Your task to perform on an android device: What's the weather today? Image 0: 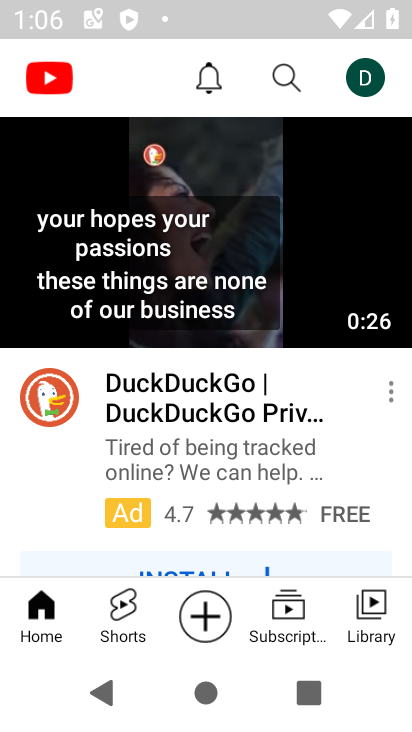
Step 0: press back button
Your task to perform on an android device: What's the weather today? Image 1: 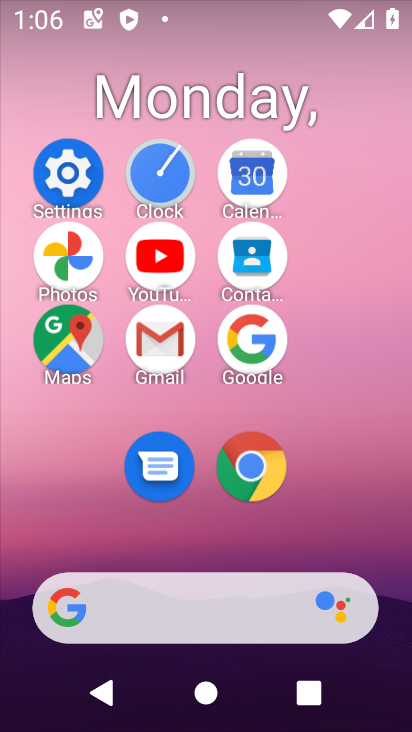
Step 1: click (244, 348)
Your task to perform on an android device: What's the weather today? Image 2: 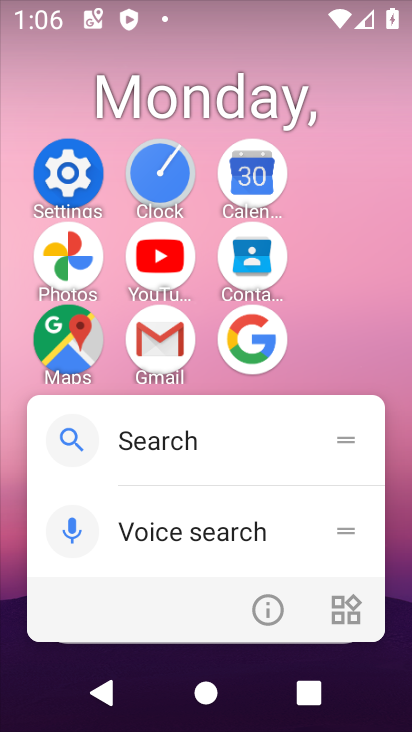
Step 2: click (270, 321)
Your task to perform on an android device: What's the weather today? Image 3: 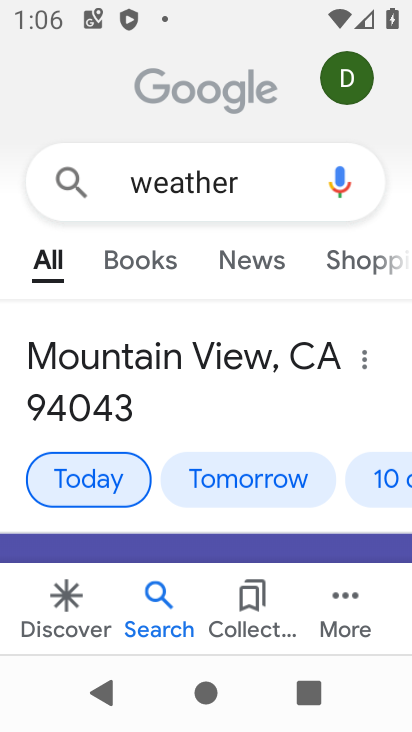
Step 3: task complete